Your task to perform on an android device: toggle improve location accuracy Image 0: 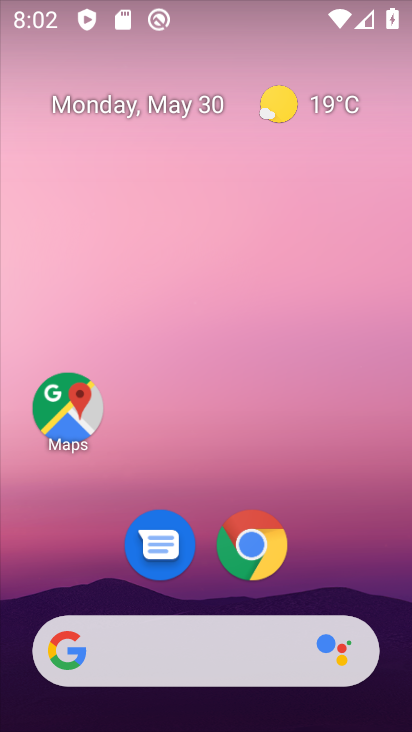
Step 0: drag from (326, 583) to (290, 342)
Your task to perform on an android device: toggle improve location accuracy Image 1: 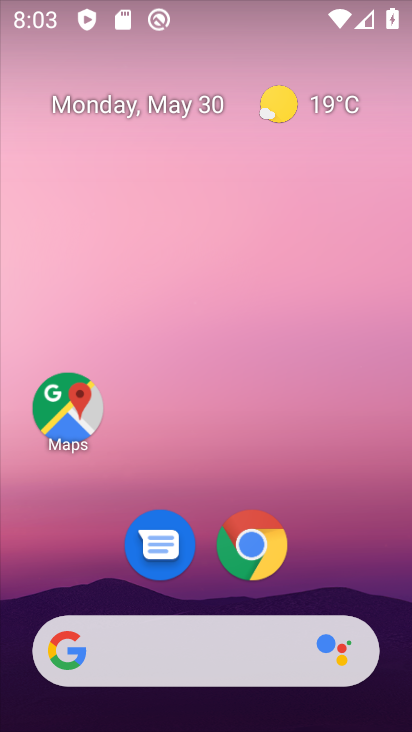
Step 1: drag from (322, 581) to (258, 42)
Your task to perform on an android device: toggle improve location accuracy Image 2: 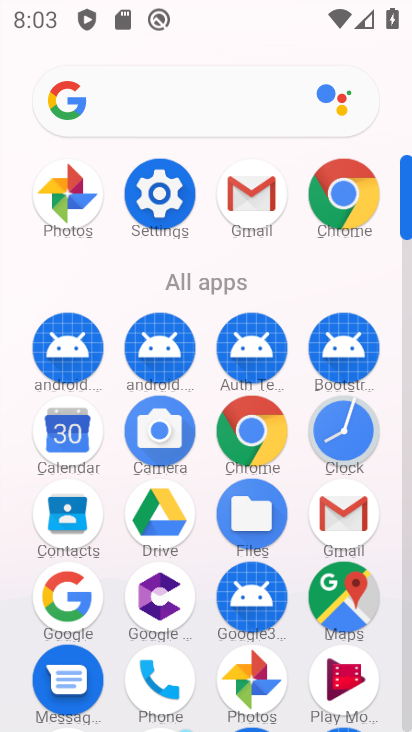
Step 2: click (171, 186)
Your task to perform on an android device: toggle improve location accuracy Image 3: 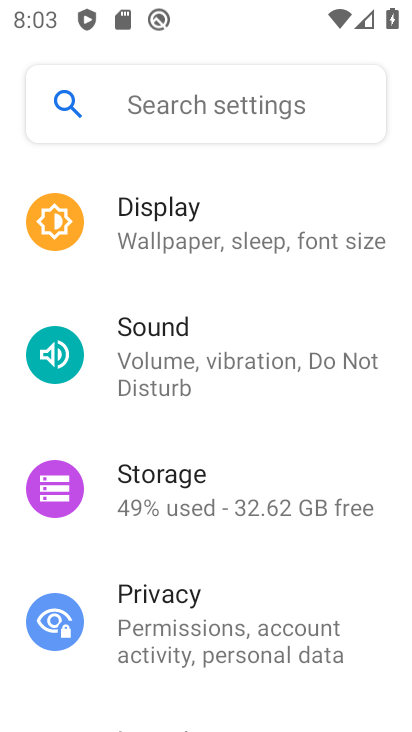
Step 3: drag from (306, 552) to (266, 168)
Your task to perform on an android device: toggle improve location accuracy Image 4: 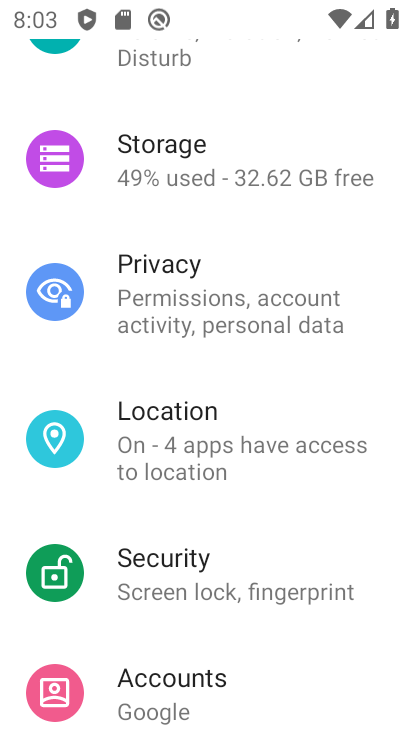
Step 4: click (174, 419)
Your task to perform on an android device: toggle improve location accuracy Image 5: 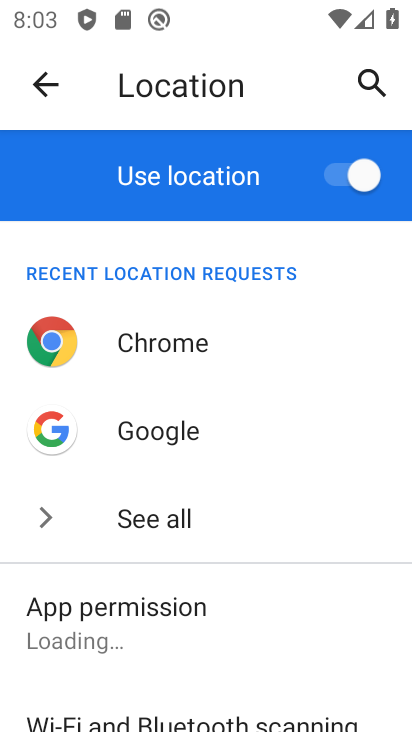
Step 5: drag from (275, 639) to (291, 294)
Your task to perform on an android device: toggle improve location accuracy Image 6: 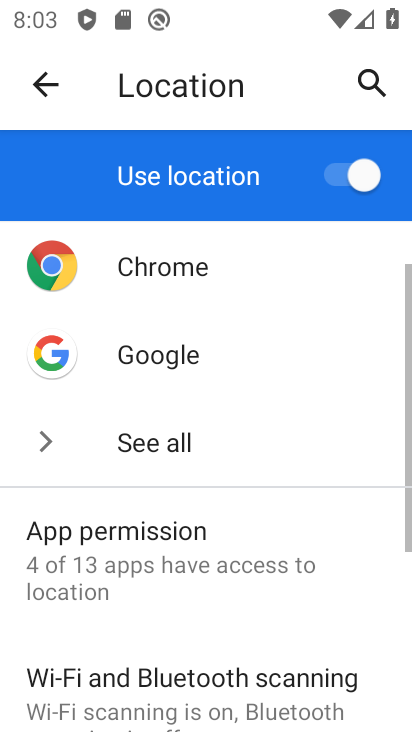
Step 6: drag from (240, 563) to (238, 370)
Your task to perform on an android device: toggle improve location accuracy Image 7: 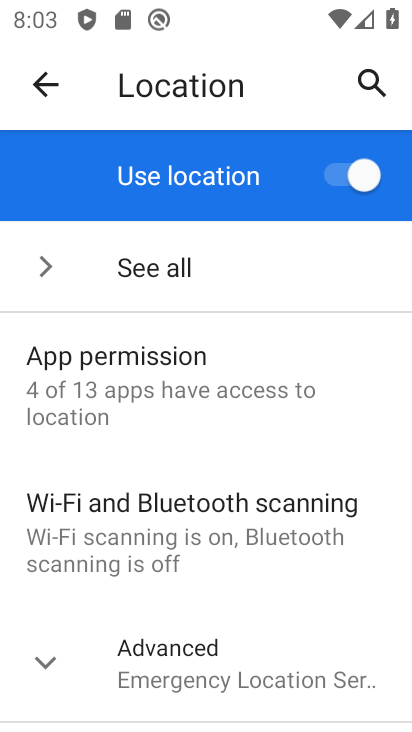
Step 7: click (188, 667)
Your task to perform on an android device: toggle improve location accuracy Image 8: 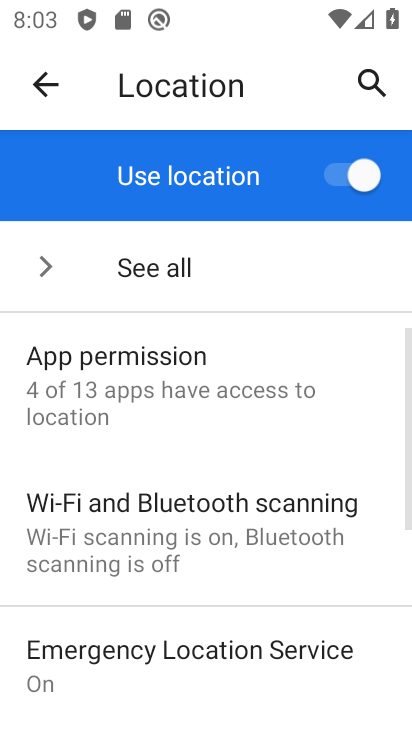
Step 8: drag from (234, 613) to (237, 352)
Your task to perform on an android device: toggle improve location accuracy Image 9: 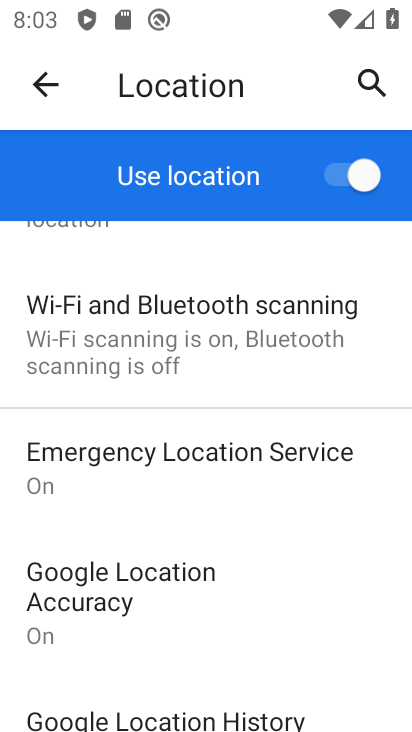
Step 9: click (133, 603)
Your task to perform on an android device: toggle improve location accuracy Image 10: 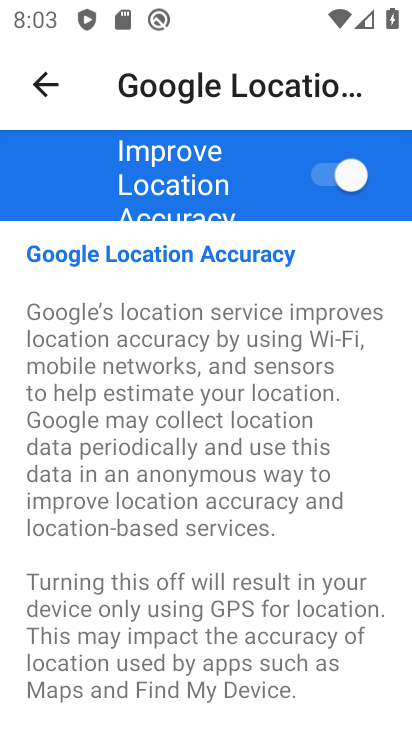
Step 10: click (319, 173)
Your task to perform on an android device: toggle improve location accuracy Image 11: 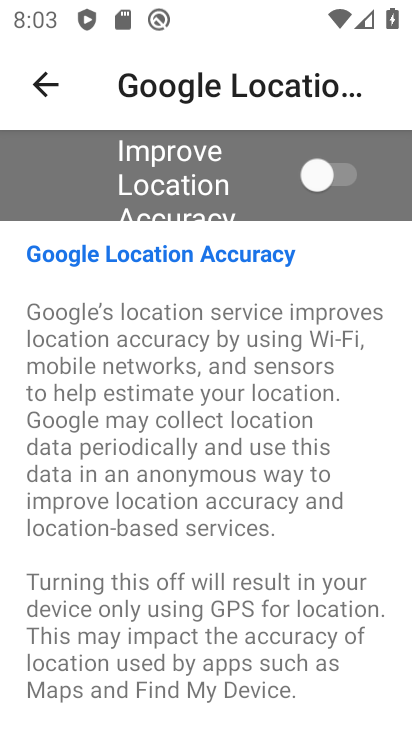
Step 11: task complete